Your task to perform on an android device: Search for sushi restaurants on Maps Image 0: 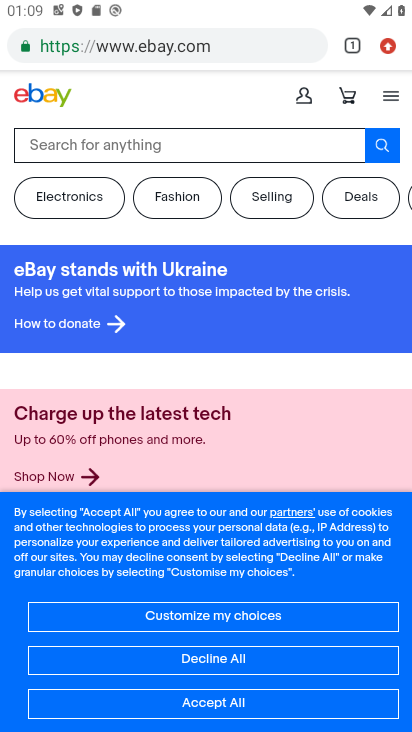
Step 0: press home button
Your task to perform on an android device: Search for sushi restaurants on Maps Image 1: 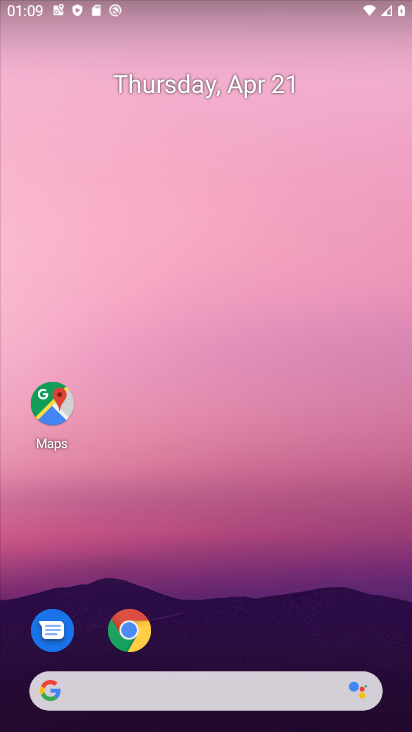
Step 1: click (64, 404)
Your task to perform on an android device: Search for sushi restaurants on Maps Image 2: 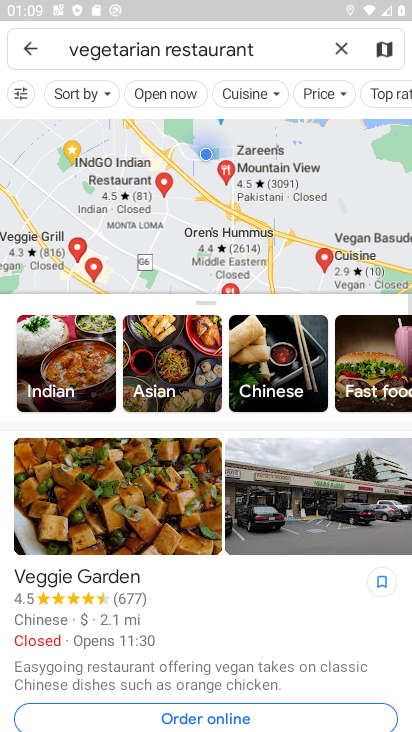
Step 2: click (346, 49)
Your task to perform on an android device: Search for sushi restaurants on Maps Image 3: 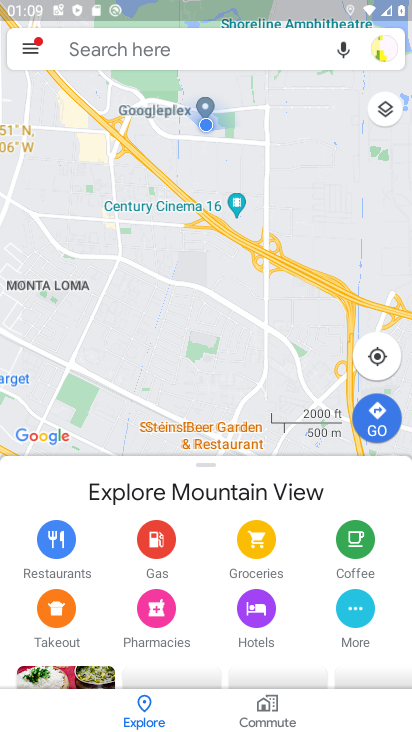
Step 3: click (346, 49)
Your task to perform on an android device: Search for sushi restaurants on Maps Image 4: 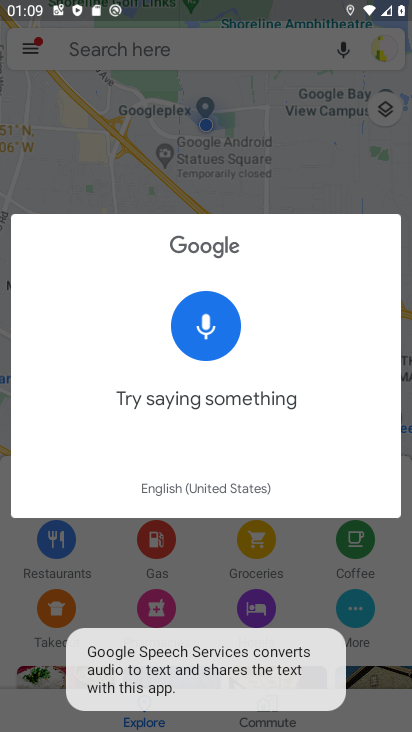
Step 4: click (310, 647)
Your task to perform on an android device: Search for sushi restaurants on Maps Image 5: 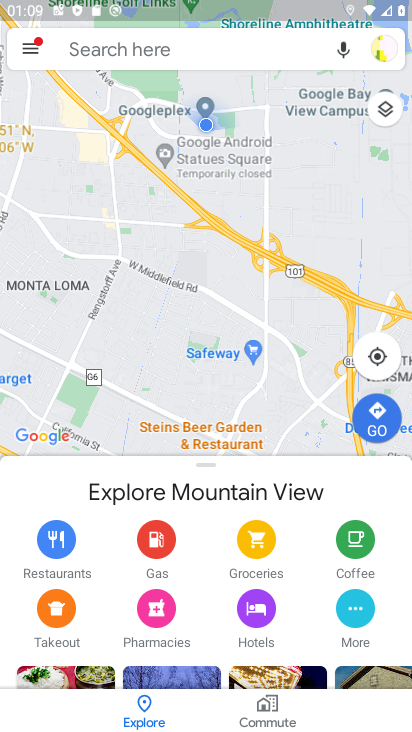
Step 5: click (159, 55)
Your task to perform on an android device: Search for sushi restaurants on Maps Image 6: 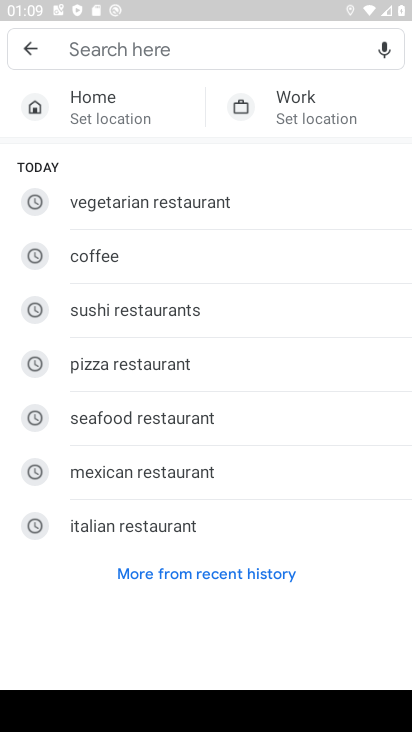
Step 6: click (156, 302)
Your task to perform on an android device: Search for sushi restaurants on Maps Image 7: 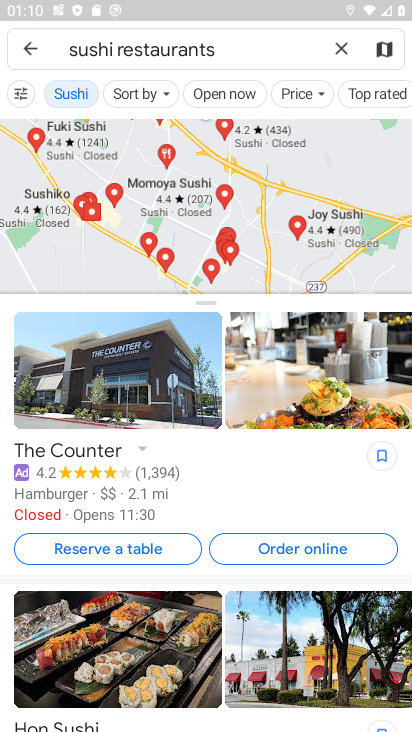
Step 7: task complete